Your task to perform on an android device: remove spam from my inbox in the gmail app Image 0: 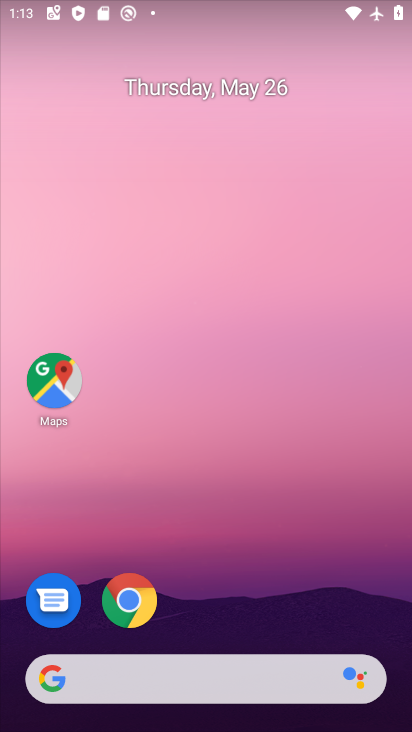
Step 0: drag from (259, 615) to (335, 118)
Your task to perform on an android device: remove spam from my inbox in the gmail app Image 1: 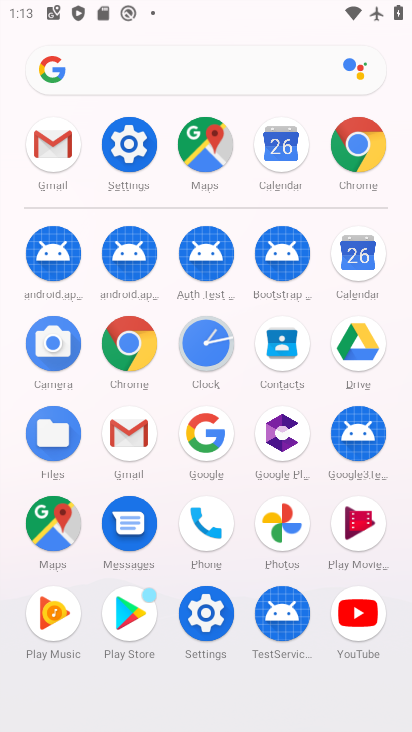
Step 1: click (68, 145)
Your task to perform on an android device: remove spam from my inbox in the gmail app Image 2: 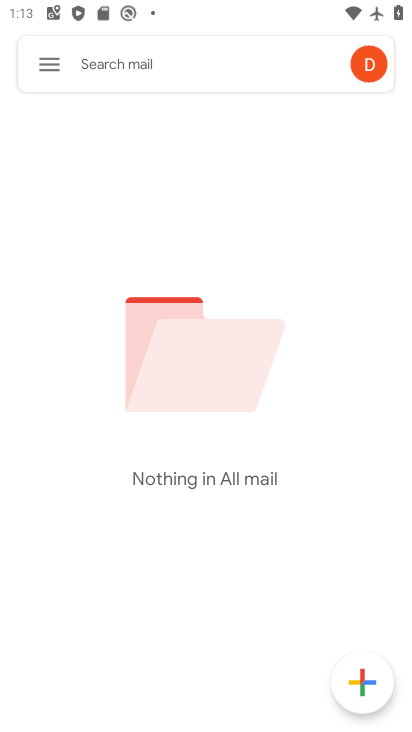
Step 2: click (54, 54)
Your task to perform on an android device: remove spam from my inbox in the gmail app Image 3: 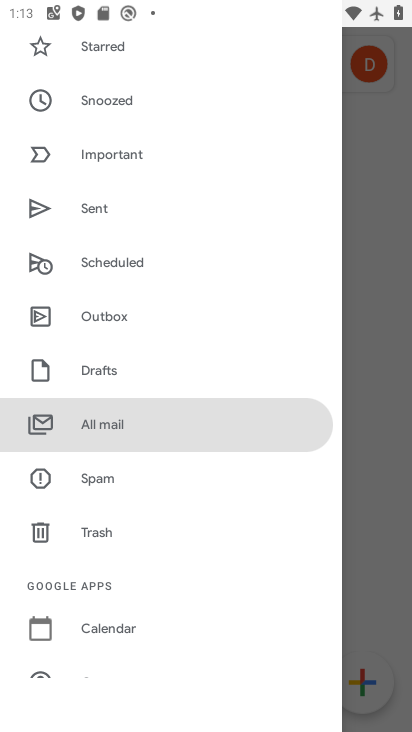
Step 3: click (100, 485)
Your task to perform on an android device: remove spam from my inbox in the gmail app Image 4: 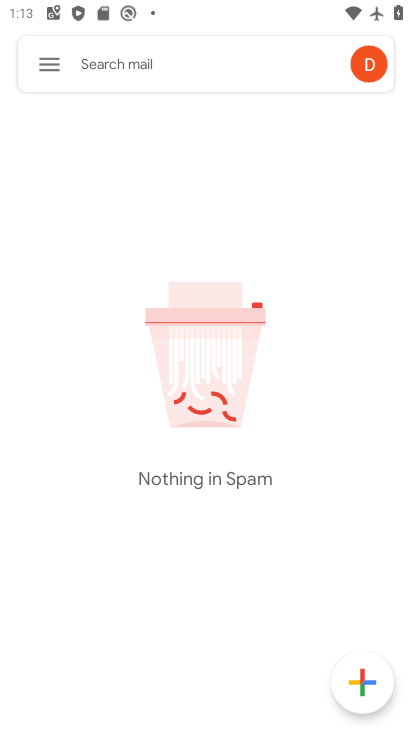
Step 4: click (49, 54)
Your task to perform on an android device: remove spam from my inbox in the gmail app Image 5: 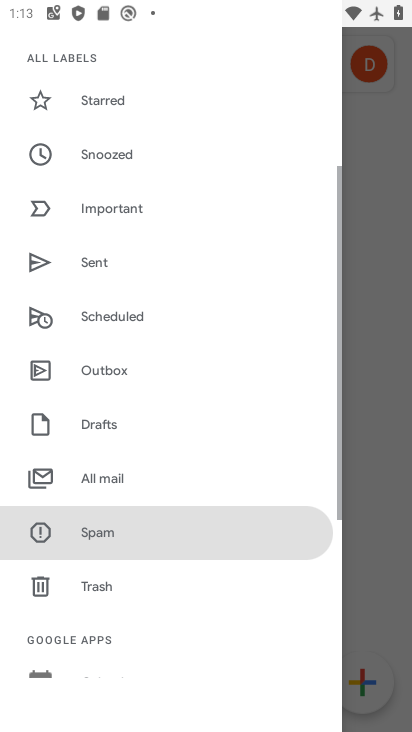
Step 5: drag from (173, 125) to (182, 575)
Your task to perform on an android device: remove spam from my inbox in the gmail app Image 6: 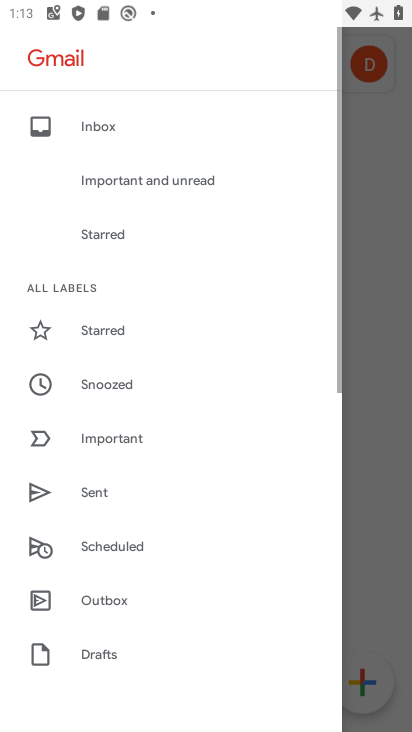
Step 6: click (108, 131)
Your task to perform on an android device: remove spam from my inbox in the gmail app Image 7: 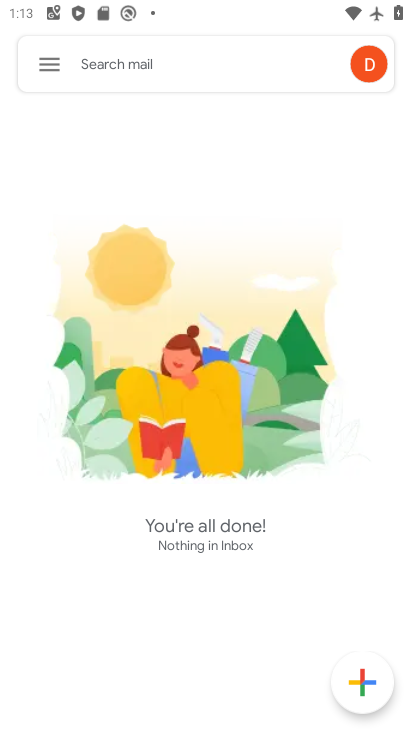
Step 7: task complete